Your task to perform on an android device: Show me popular videos on Youtube Image 0: 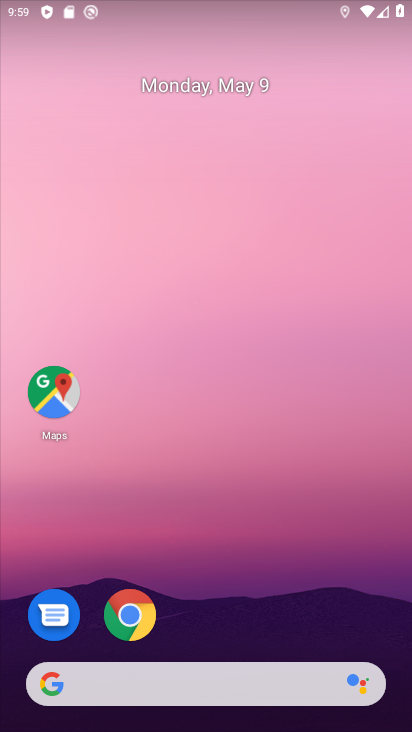
Step 0: drag from (184, 352) to (218, 197)
Your task to perform on an android device: Show me popular videos on Youtube Image 1: 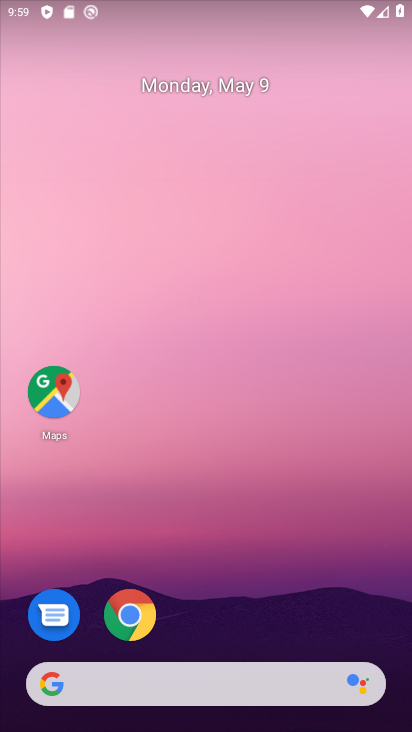
Step 1: drag from (188, 588) to (257, 149)
Your task to perform on an android device: Show me popular videos on Youtube Image 2: 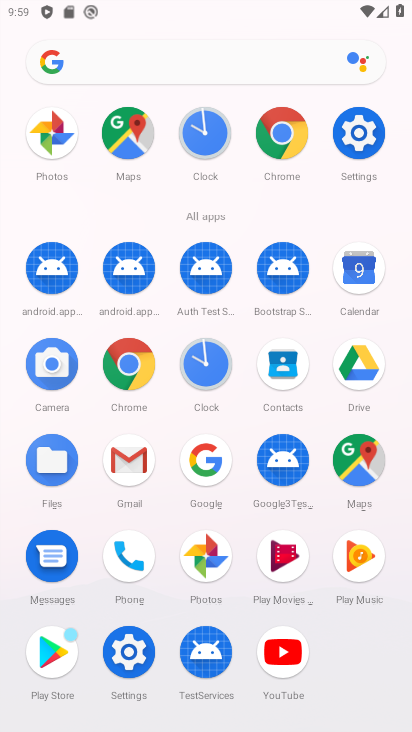
Step 2: click (276, 665)
Your task to perform on an android device: Show me popular videos on Youtube Image 3: 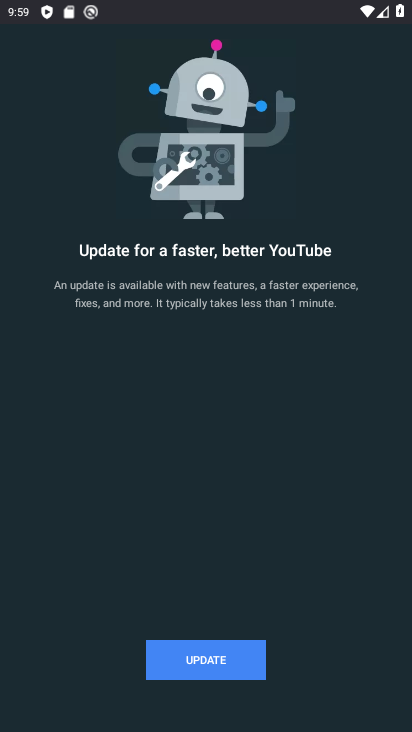
Step 3: click (189, 677)
Your task to perform on an android device: Show me popular videos on Youtube Image 4: 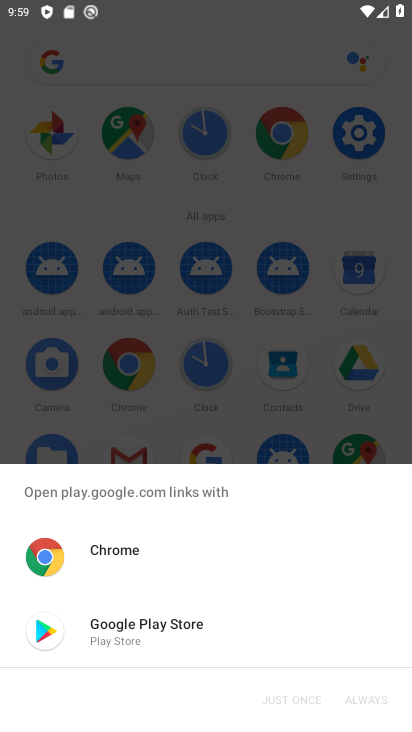
Step 4: click (135, 618)
Your task to perform on an android device: Show me popular videos on Youtube Image 5: 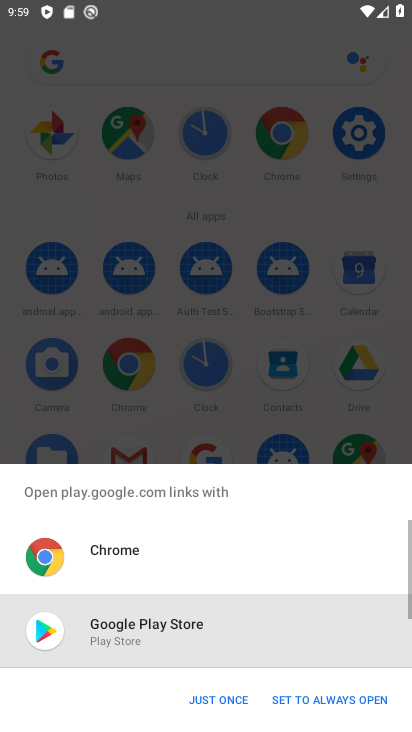
Step 5: click (227, 697)
Your task to perform on an android device: Show me popular videos on Youtube Image 6: 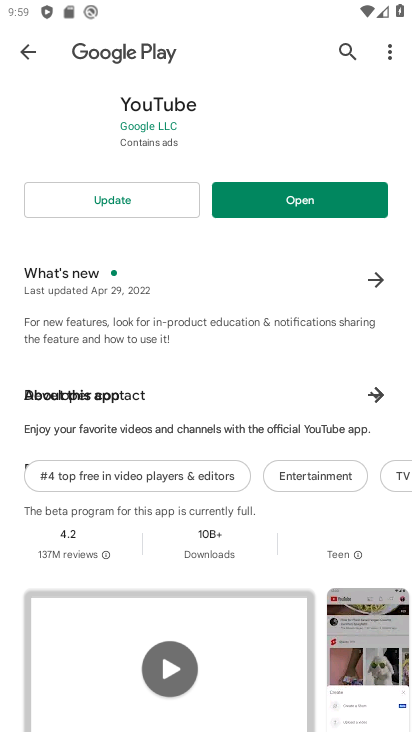
Step 6: click (120, 684)
Your task to perform on an android device: Show me popular videos on Youtube Image 7: 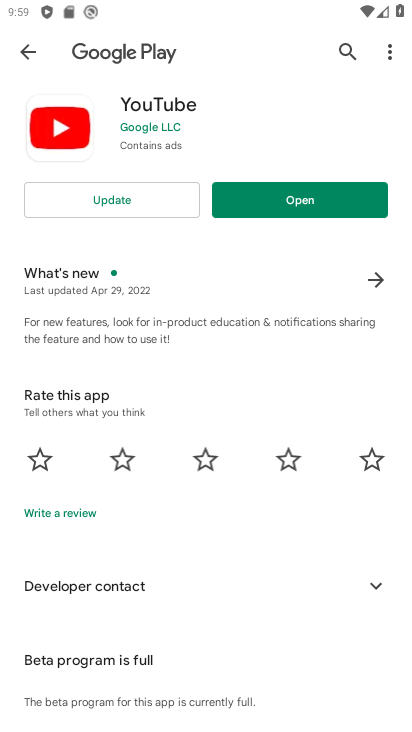
Step 7: click (95, 200)
Your task to perform on an android device: Show me popular videos on Youtube Image 8: 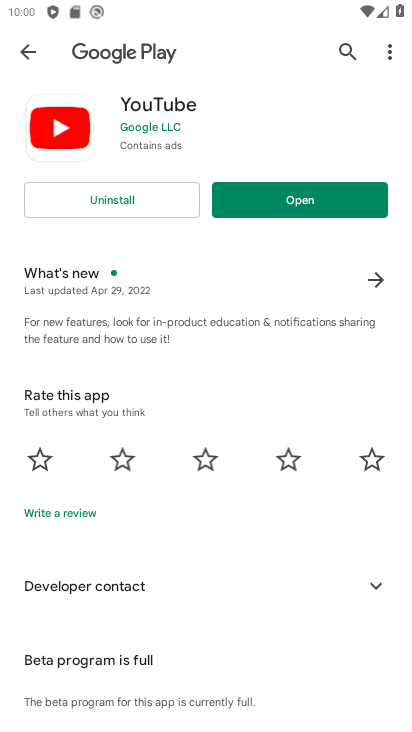
Step 8: click (251, 209)
Your task to perform on an android device: Show me popular videos on Youtube Image 9: 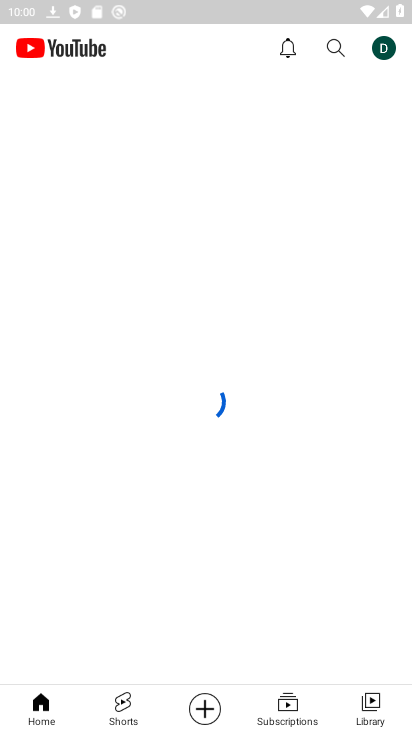
Step 9: click (348, 41)
Your task to perform on an android device: Show me popular videos on Youtube Image 10: 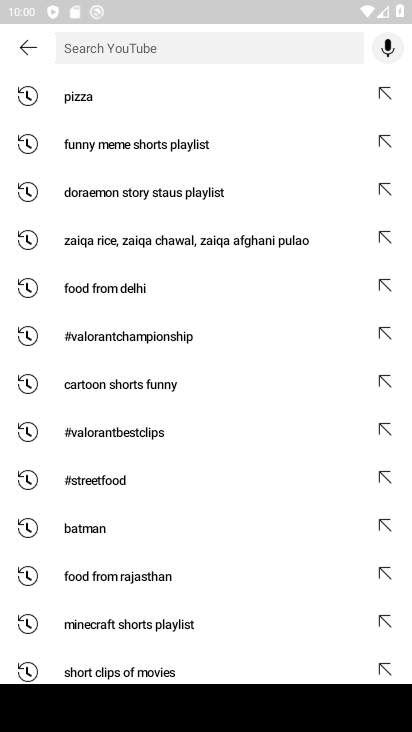
Step 10: type "popular videos"
Your task to perform on an android device: Show me popular videos on Youtube Image 11: 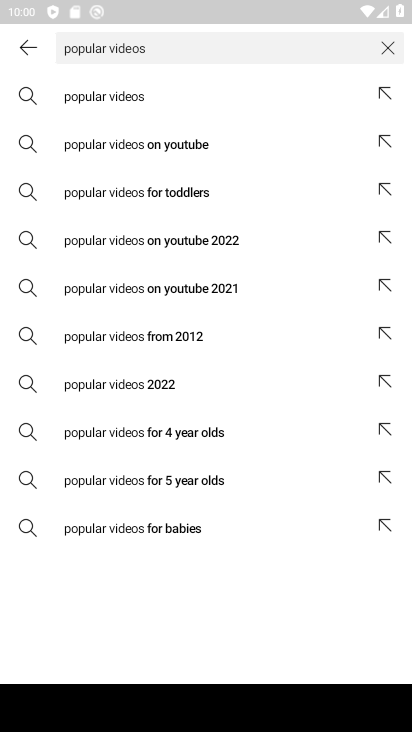
Step 11: click (113, 93)
Your task to perform on an android device: Show me popular videos on Youtube Image 12: 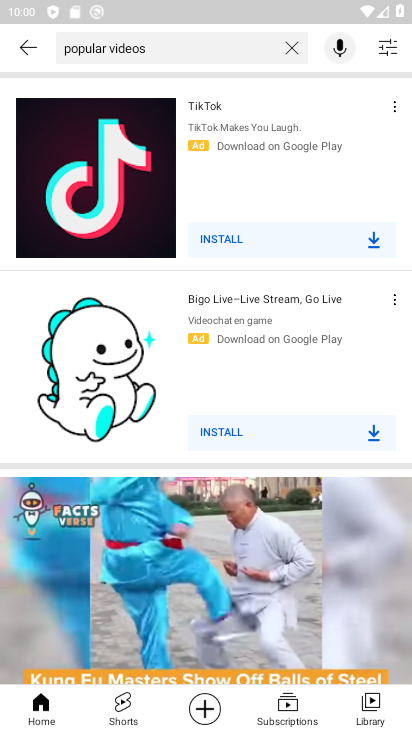
Step 12: task complete